Your task to perform on an android device: add a contact Image 0: 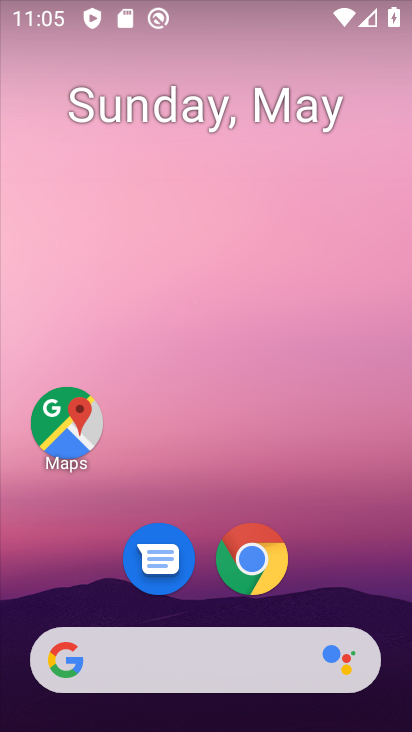
Step 0: drag from (317, 594) to (333, 214)
Your task to perform on an android device: add a contact Image 1: 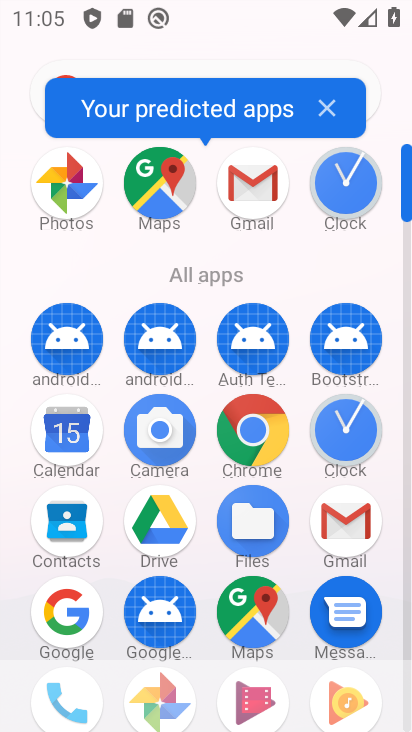
Step 1: click (75, 532)
Your task to perform on an android device: add a contact Image 2: 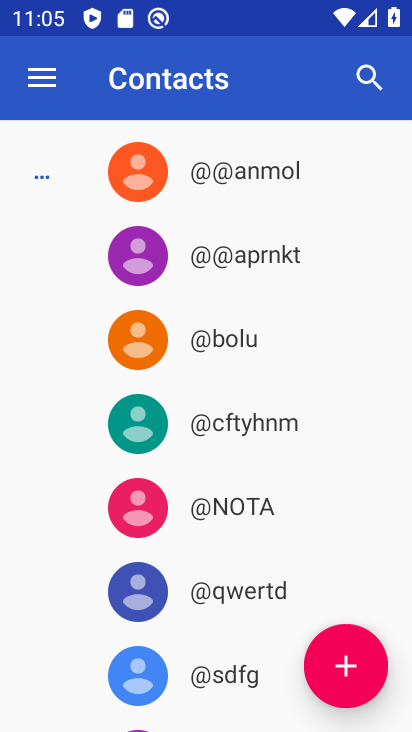
Step 2: click (345, 672)
Your task to perform on an android device: add a contact Image 3: 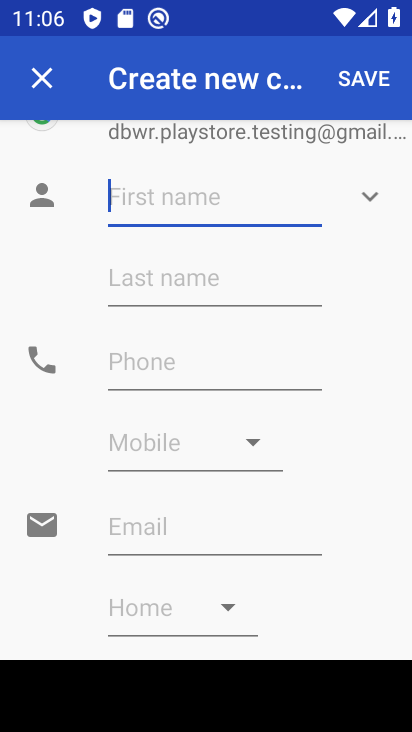
Step 3: type "connection no.7"
Your task to perform on an android device: add a contact Image 4: 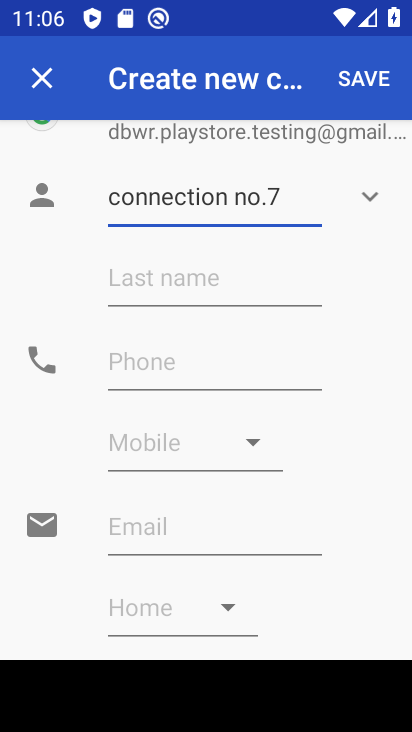
Step 4: click (174, 360)
Your task to perform on an android device: add a contact Image 5: 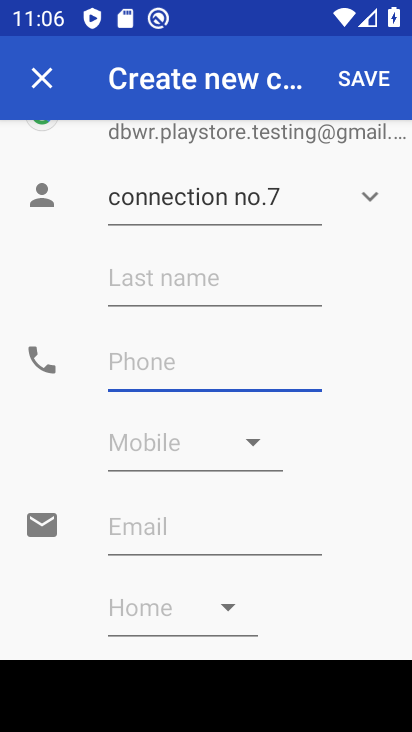
Step 5: type "9897623134"
Your task to perform on an android device: add a contact Image 6: 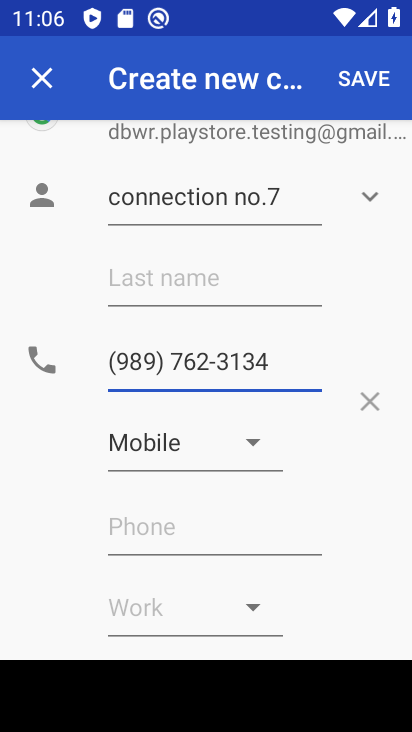
Step 6: click (381, 79)
Your task to perform on an android device: add a contact Image 7: 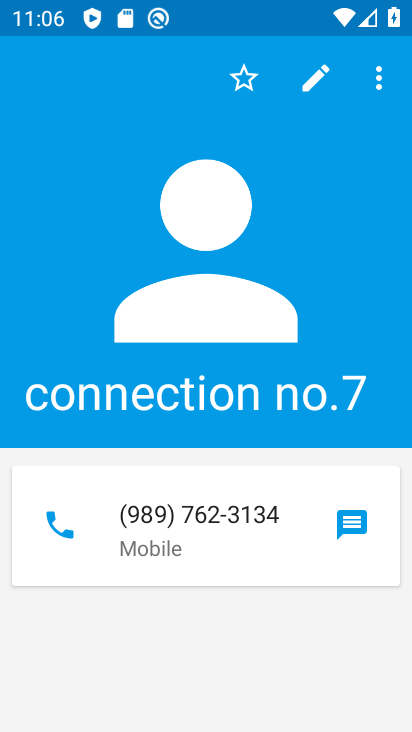
Step 7: task complete